Your task to perform on an android device: Go to Amazon Image 0: 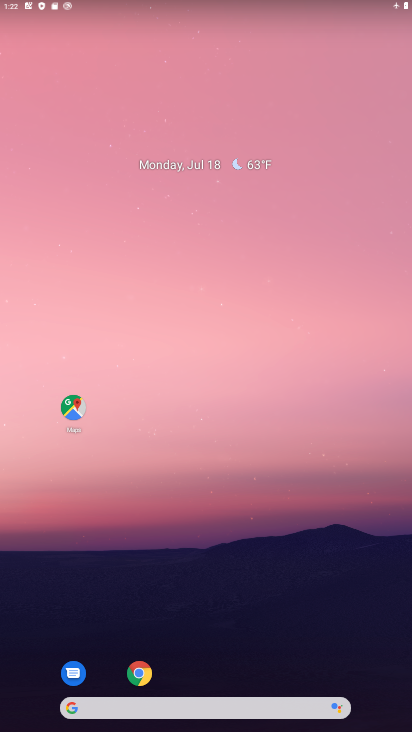
Step 0: click (132, 676)
Your task to perform on an android device: Go to Amazon Image 1: 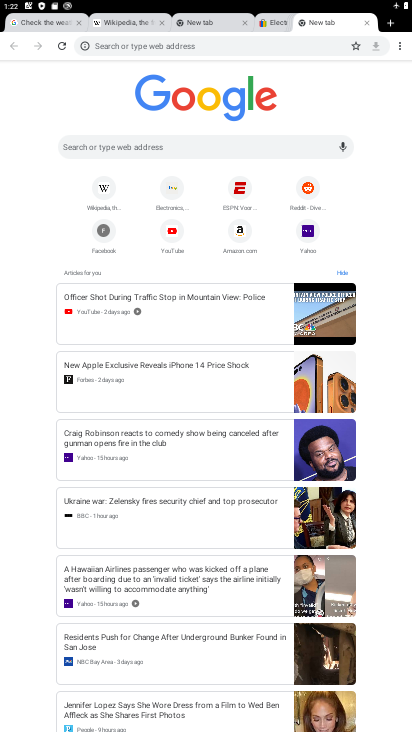
Step 1: click (246, 229)
Your task to perform on an android device: Go to Amazon Image 2: 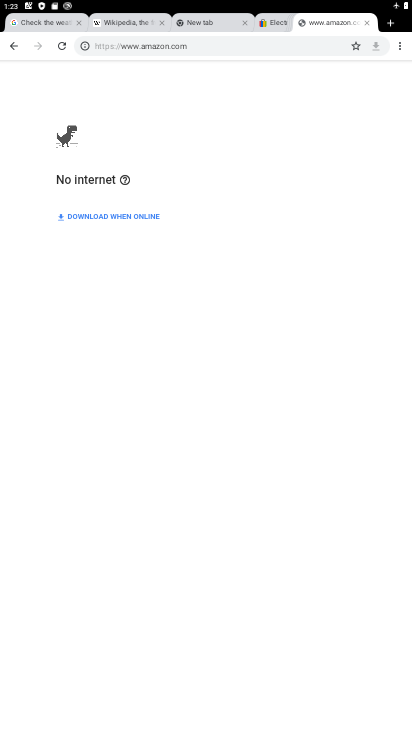
Step 2: task complete